Your task to perform on an android device: open sync settings in chrome Image 0: 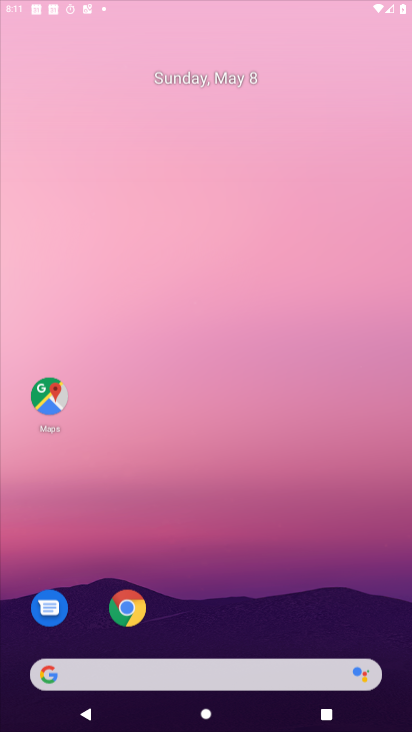
Step 0: click (113, 613)
Your task to perform on an android device: open sync settings in chrome Image 1: 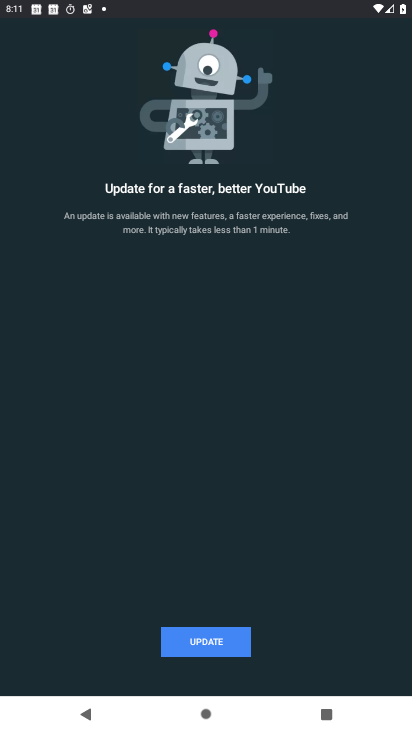
Step 1: press home button
Your task to perform on an android device: open sync settings in chrome Image 2: 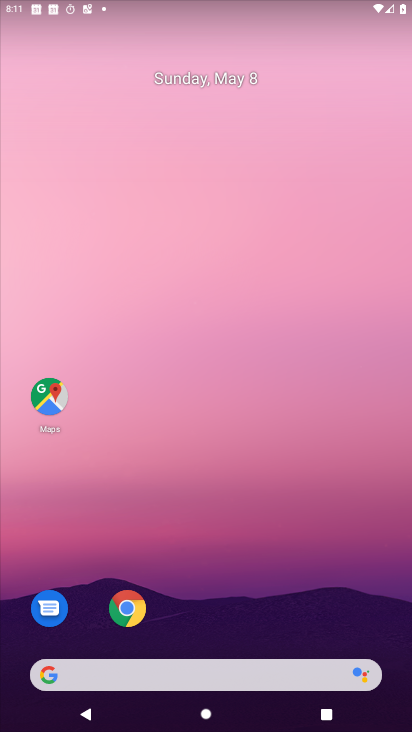
Step 2: click (128, 605)
Your task to perform on an android device: open sync settings in chrome Image 3: 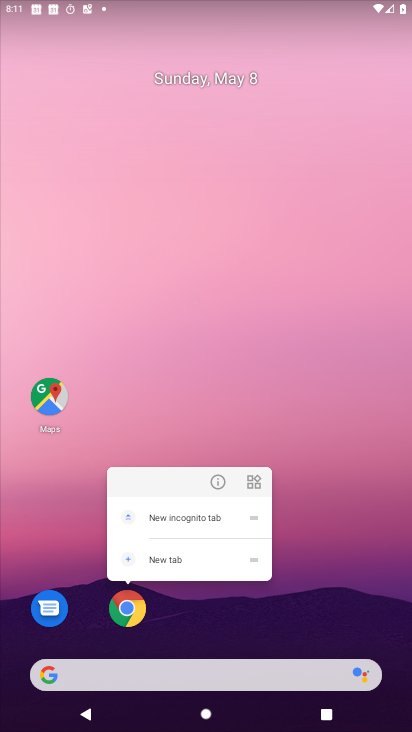
Step 3: click (137, 615)
Your task to perform on an android device: open sync settings in chrome Image 4: 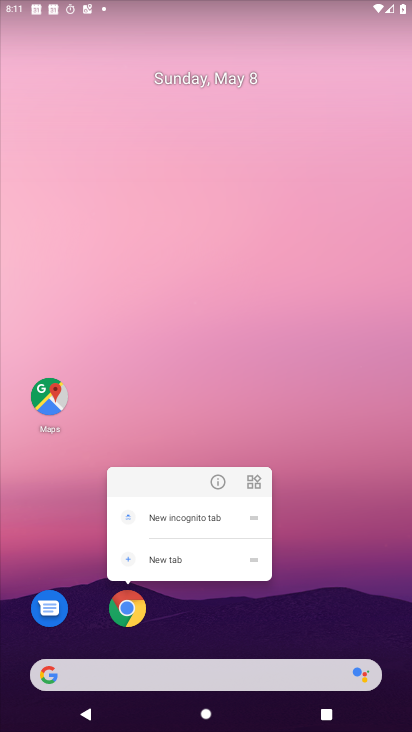
Step 4: click (134, 617)
Your task to perform on an android device: open sync settings in chrome Image 5: 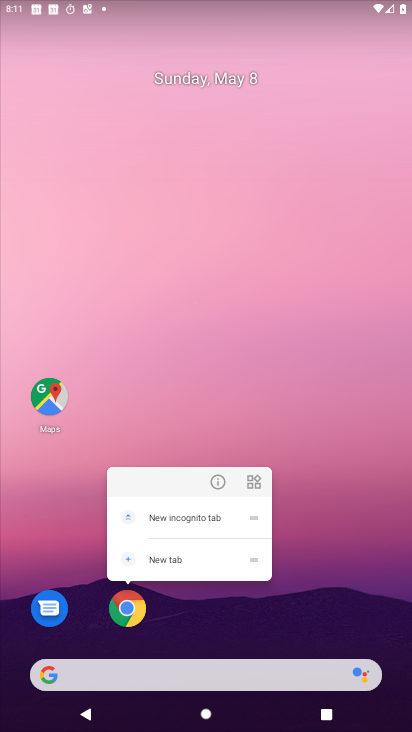
Step 5: click (128, 610)
Your task to perform on an android device: open sync settings in chrome Image 6: 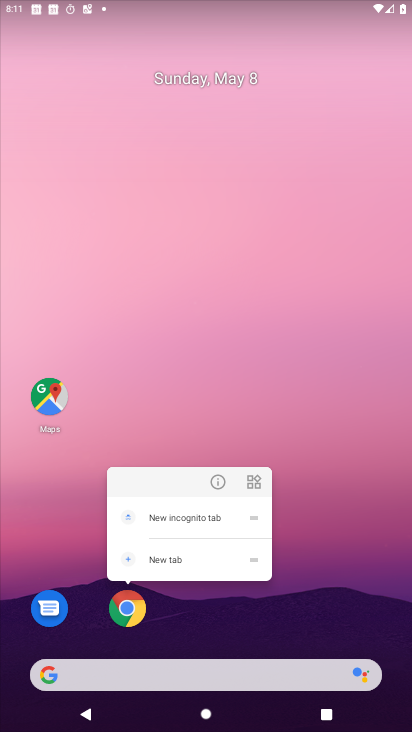
Step 6: click (136, 625)
Your task to perform on an android device: open sync settings in chrome Image 7: 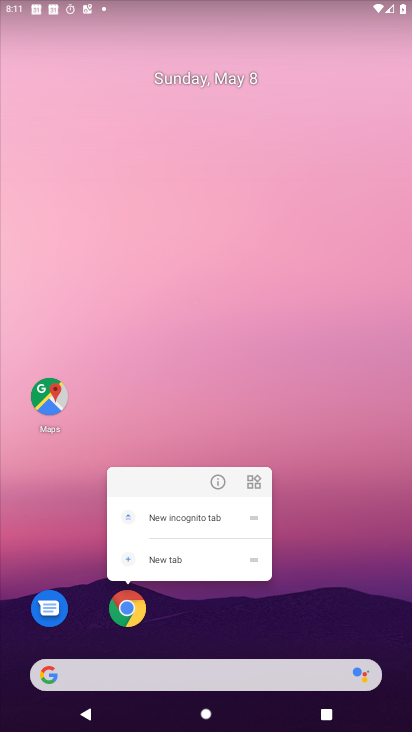
Step 7: click (122, 609)
Your task to perform on an android device: open sync settings in chrome Image 8: 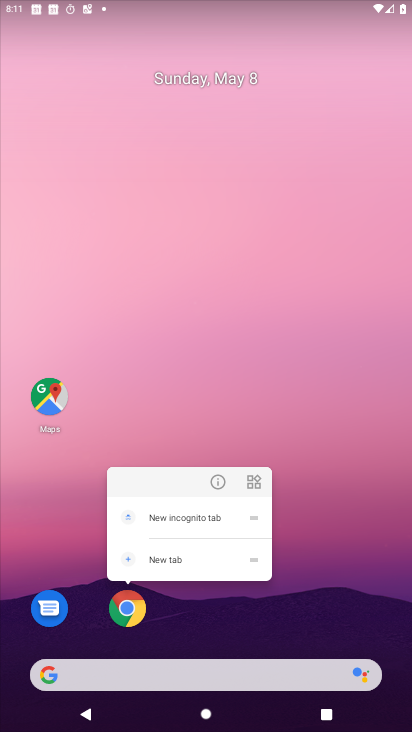
Step 8: click (139, 617)
Your task to perform on an android device: open sync settings in chrome Image 9: 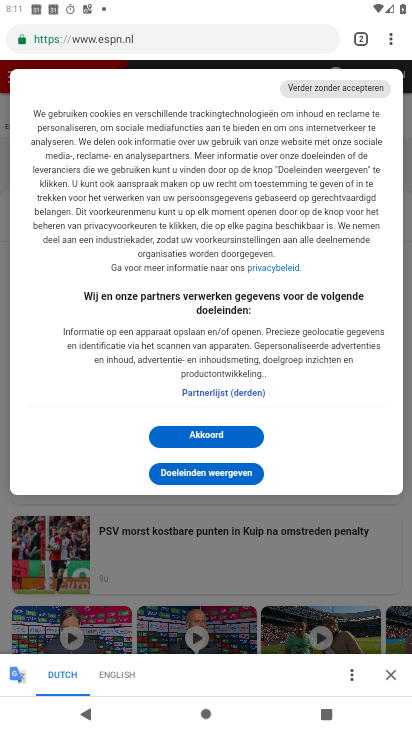
Step 9: click (139, 617)
Your task to perform on an android device: open sync settings in chrome Image 10: 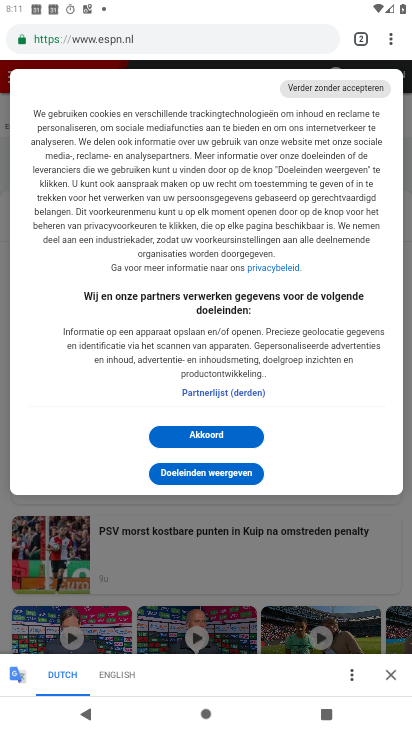
Step 10: drag from (393, 40) to (300, 476)
Your task to perform on an android device: open sync settings in chrome Image 11: 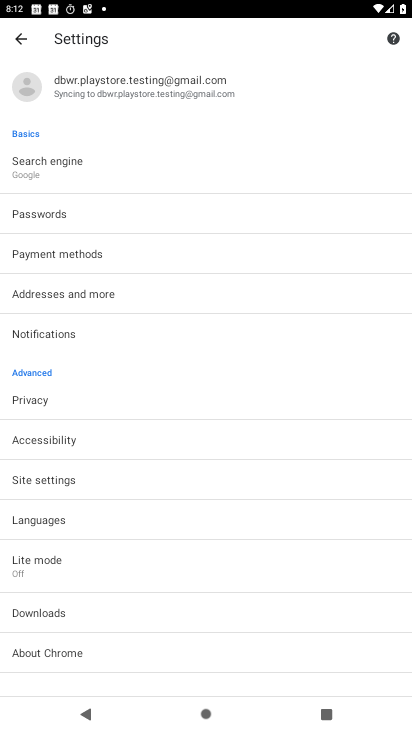
Step 11: click (79, 475)
Your task to perform on an android device: open sync settings in chrome Image 12: 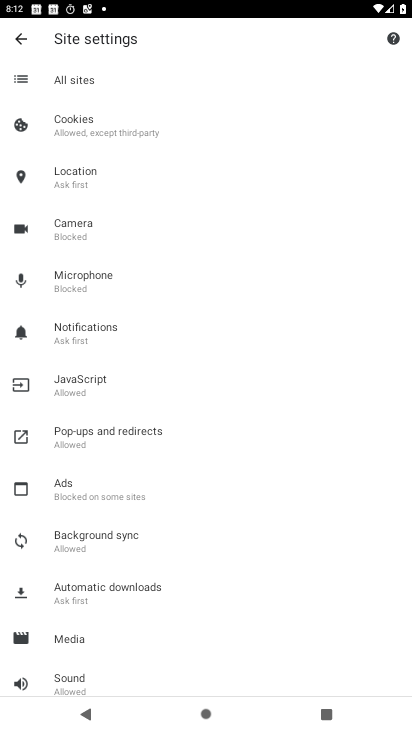
Step 12: click (132, 543)
Your task to perform on an android device: open sync settings in chrome Image 13: 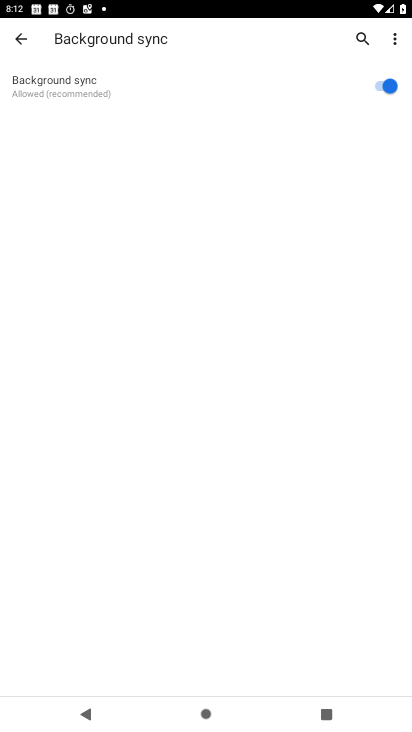
Step 13: task complete